Your task to perform on an android device: Open the stopwatch Image 0: 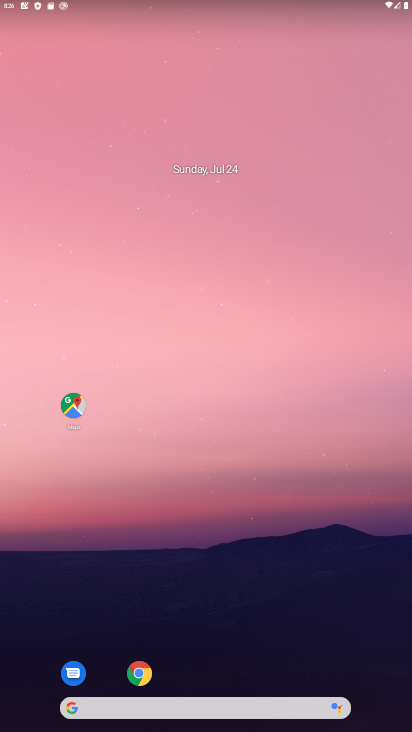
Step 0: press home button
Your task to perform on an android device: Open the stopwatch Image 1: 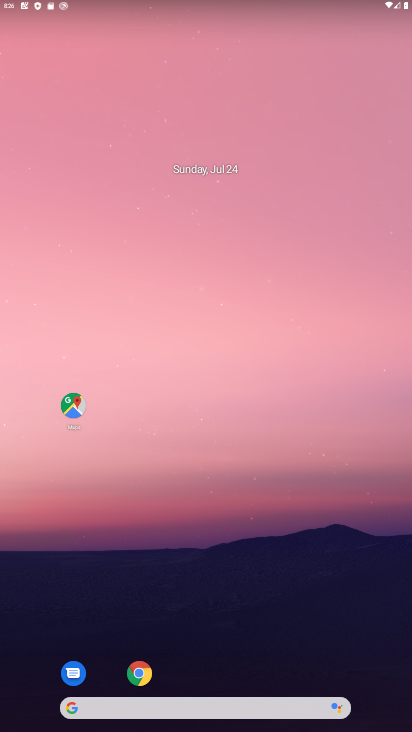
Step 1: drag from (215, 497) to (158, 52)
Your task to perform on an android device: Open the stopwatch Image 2: 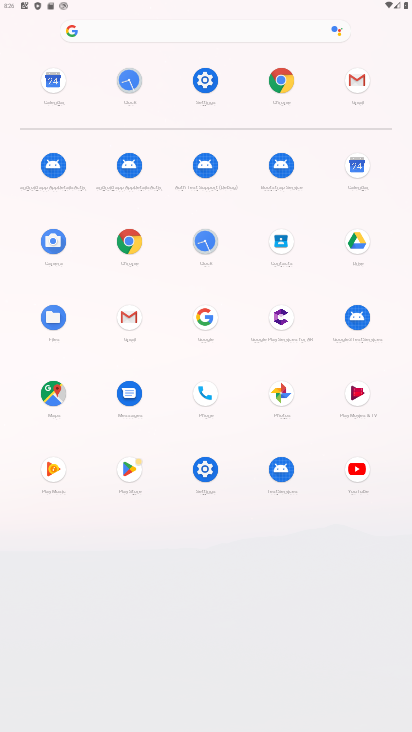
Step 2: click (206, 245)
Your task to perform on an android device: Open the stopwatch Image 3: 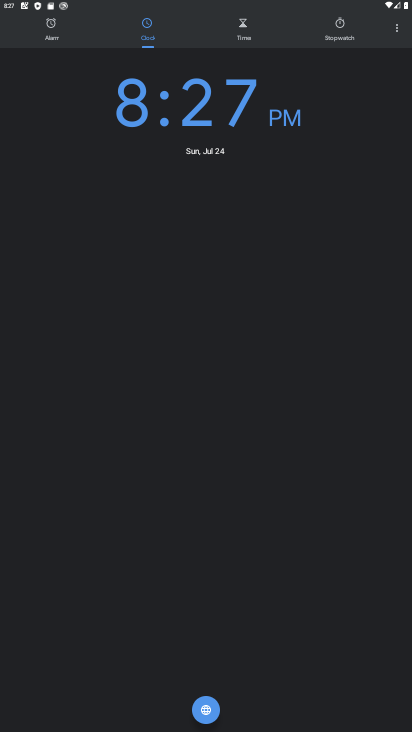
Step 3: click (336, 43)
Your task to perform on an android device: Open the stopwatch Image 4: 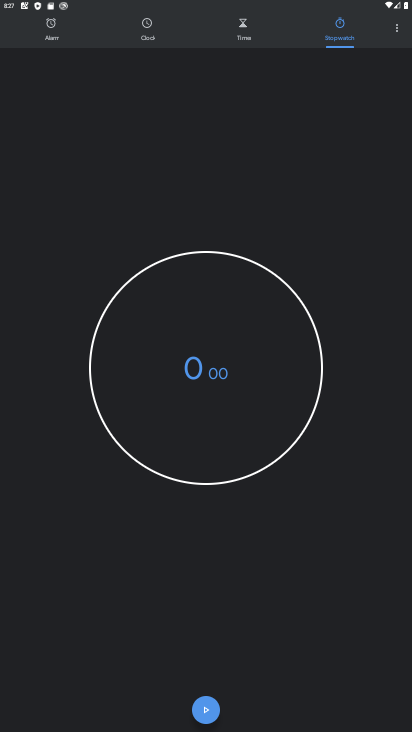
Step 4: task complete